Your task to perform on an android device: Open the calendar and show me this week's events? Image 0: 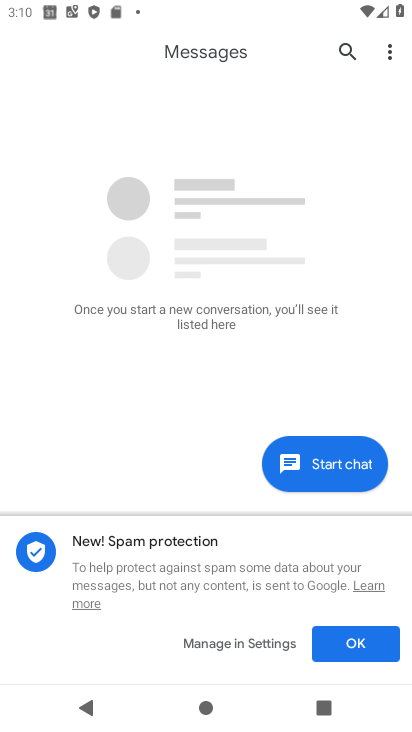
Step 0: press home button
Your task to perform on an android device: Open the calendar and show me this week's events? Image 1: 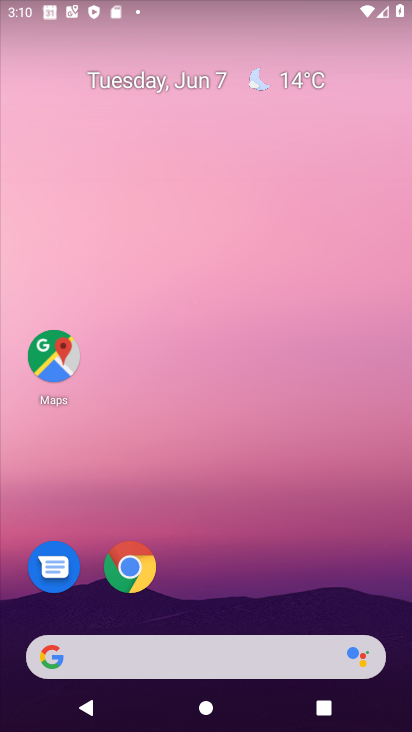
Step 1: drag from (234, 596) to (241, 355)
Your task to perform on an android device: Open the calendar and show me this week's events? Image 2: 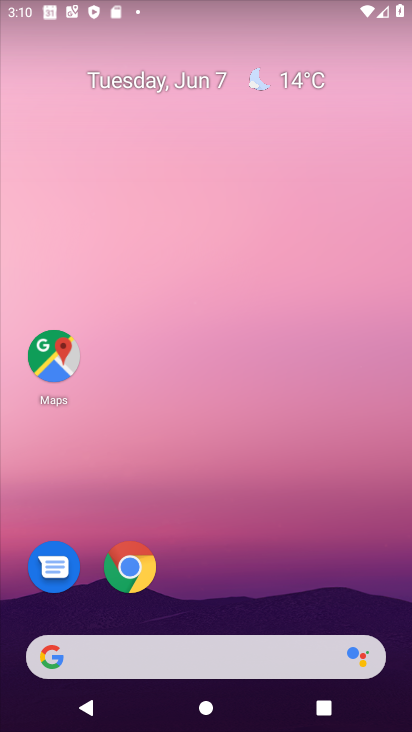
Step 2: drag from (215, 594) to (180, 241)
Your task to perform on an android device: Open the calendar and show me this week's events? Image 3: 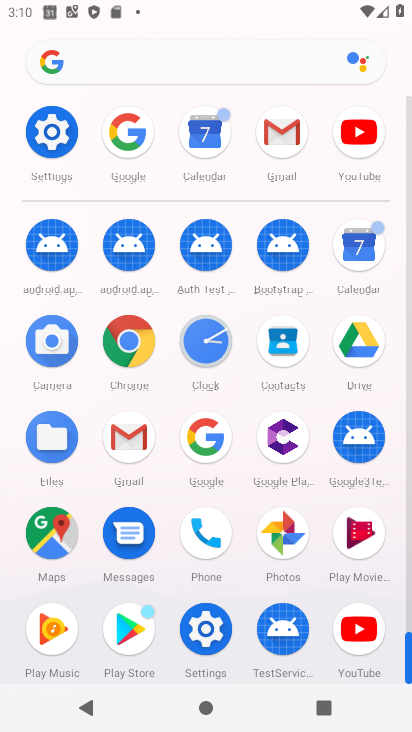
Step 3: click (335, 241)
Your task to perform on an android device: Open the calendar and show me this week's events? Image 4: 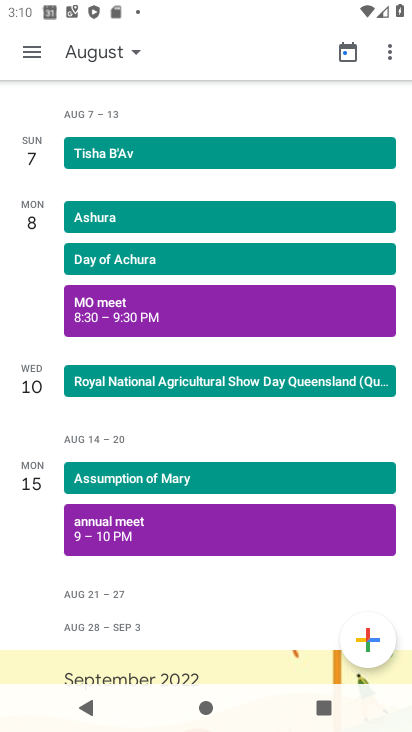
Step 4: click (128, 55)
Your task to perform on an android device: Open the calendar and show me this week's events? Image 5: 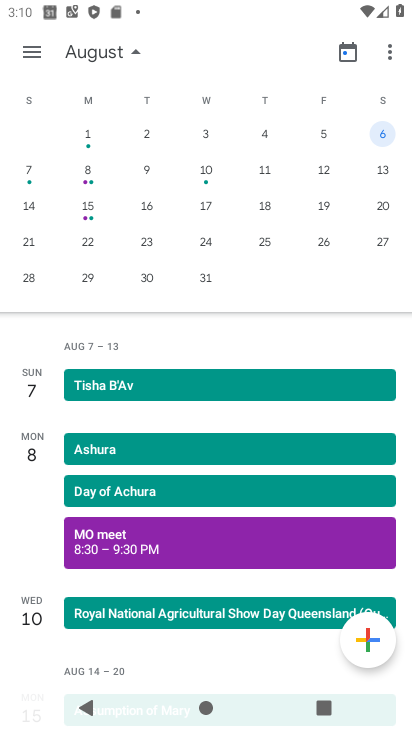
Step 5: task complete